Your task to perform on an android device: turn on airplane mode Image 0: 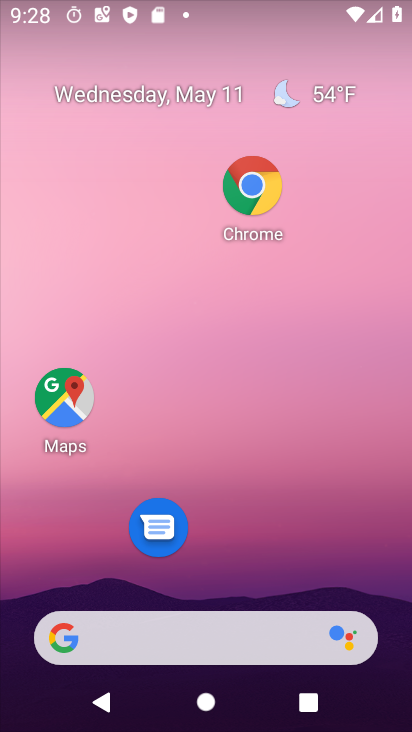
Step 0: drag from (260, 543) to (265, 67)
Your task to perform on an android device: turn on airplane mode Image 1: 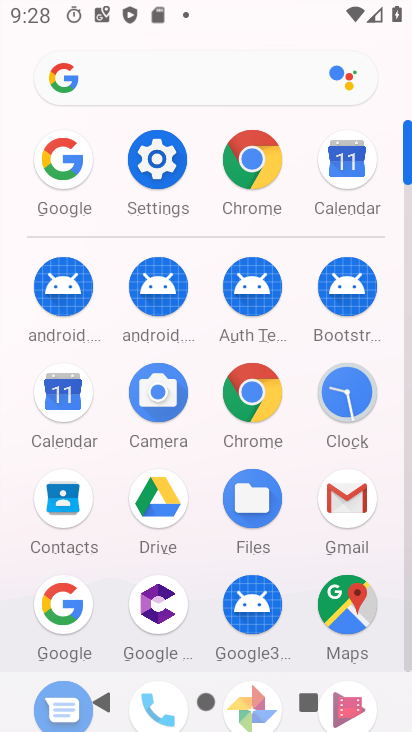
Step 1: click (147, 151)
Your task to perform on an android device: turn on airplane mode Image 2: 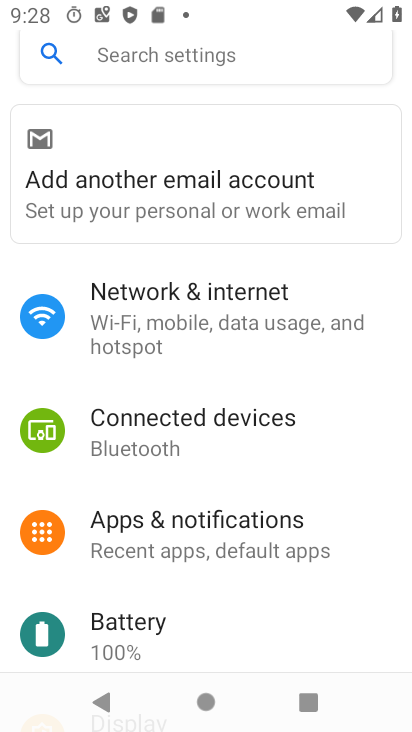
Step 2: click (213, 322)
Your task to perform on an android device: turn on airplane mode Image 3: 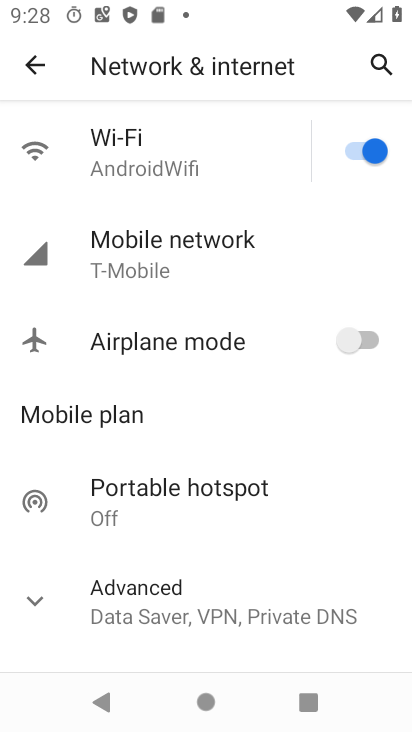
Step 3: click (358, 338)
Your task to perform on an android device: turn on airplane mode Image 4: 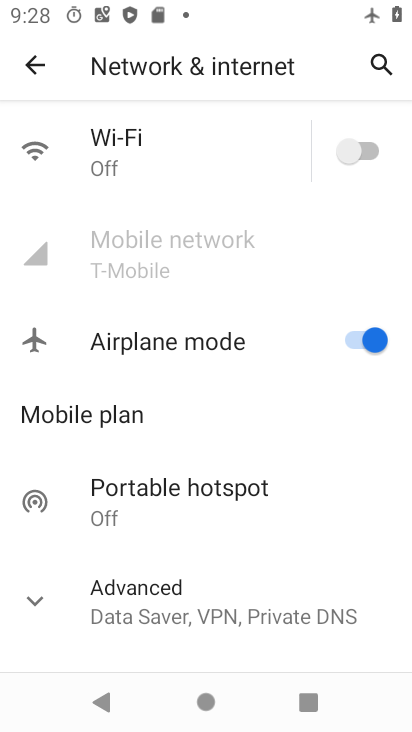
Step 4: task complete